Your task to perform on an android device: show emergency info Image 0: 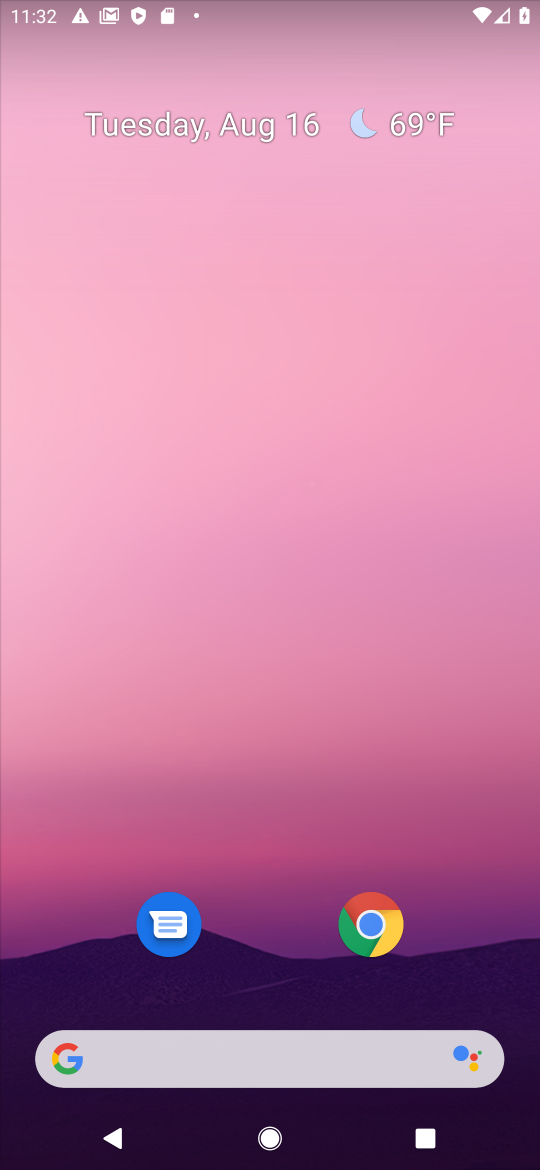
Step 0: drag from (381, 686) to (357, 172)
Your task to perform on an android device: show emergency info Image 1: 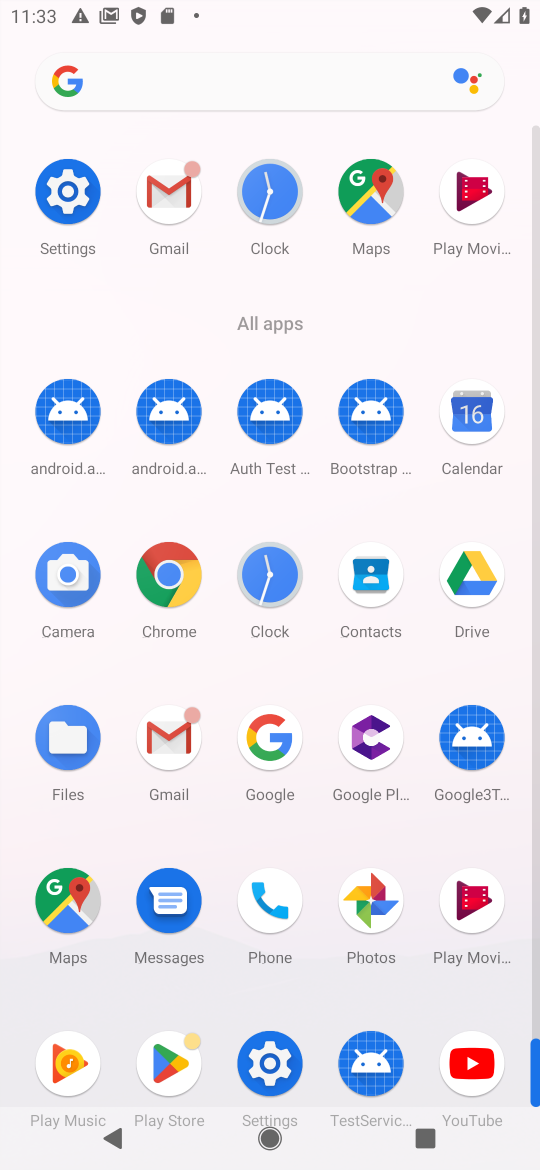
Step 1: click (66, 201)
Your task to perform on an android device: show emergency info Image 2: 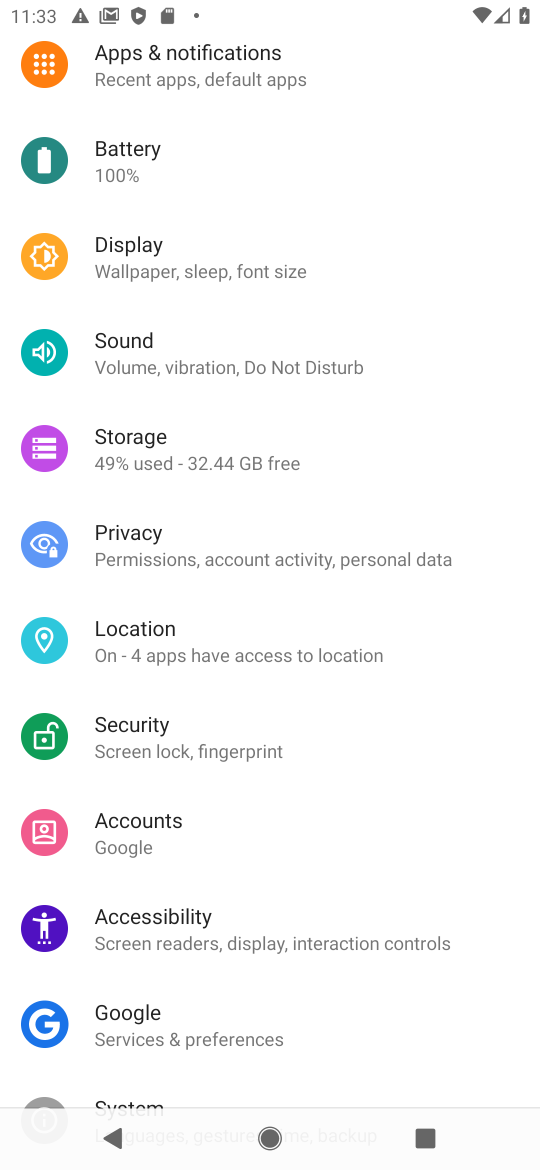
Step 2: click (306, 473)
Your task to perform on an android device: show emergency info Image 3: 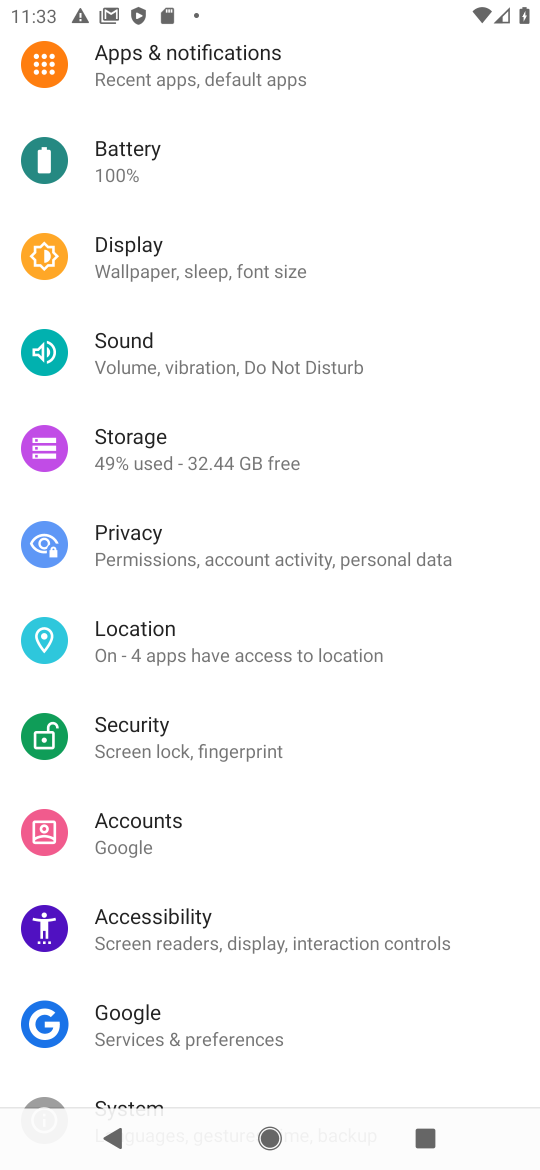
Step 3: drag from (365, 1050) to (481, 284)
Your task to perform on an android device: show emergency info Image 4: 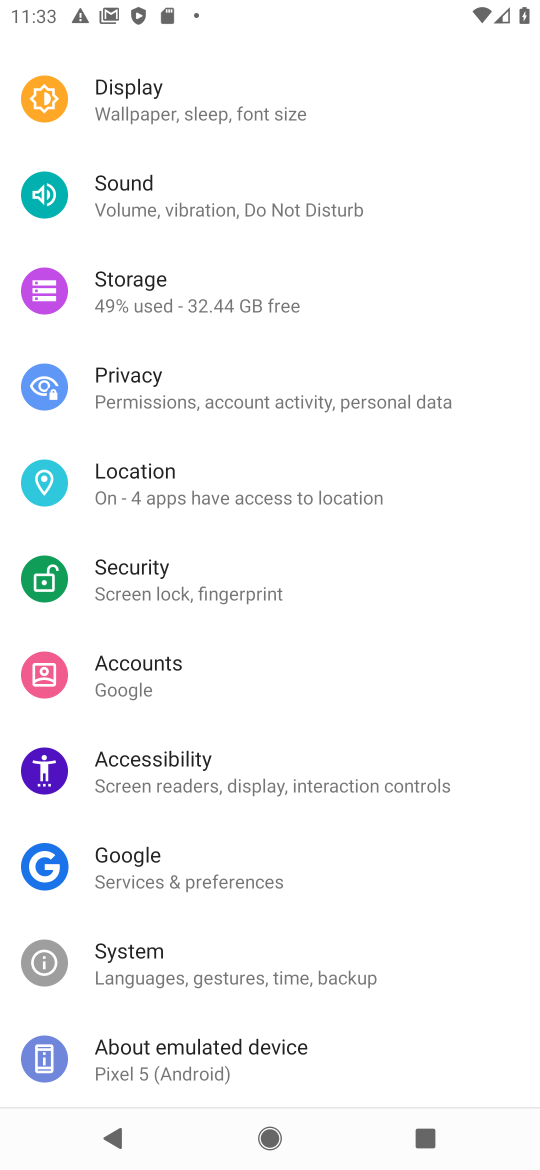
Step 4: click (342, 1061)
Your task to perform on an android device: show emergency info Image 5: 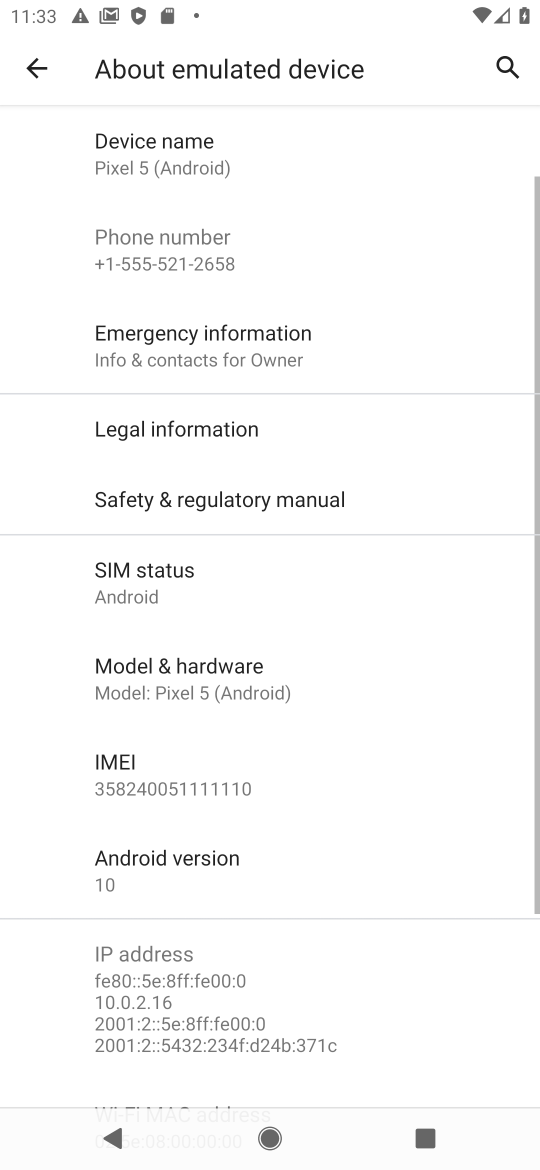
Step 5: click (196, 356)
Your task to perform on an android device: show emergency info Image 6: 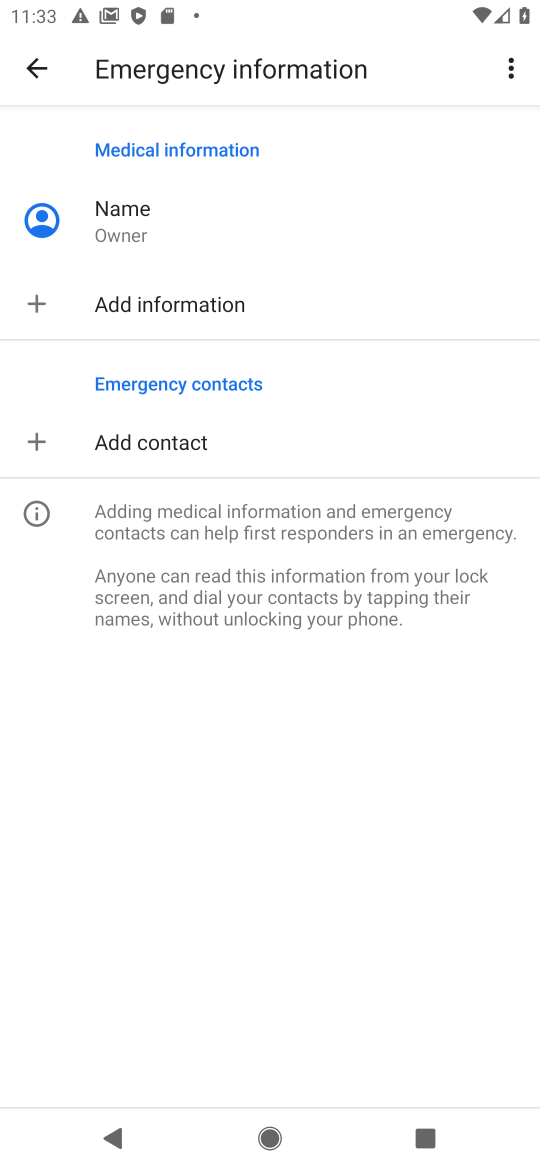
Step 6: task complete